Your task to perform on an android device: refresh tabs in the chrome app Image 0: 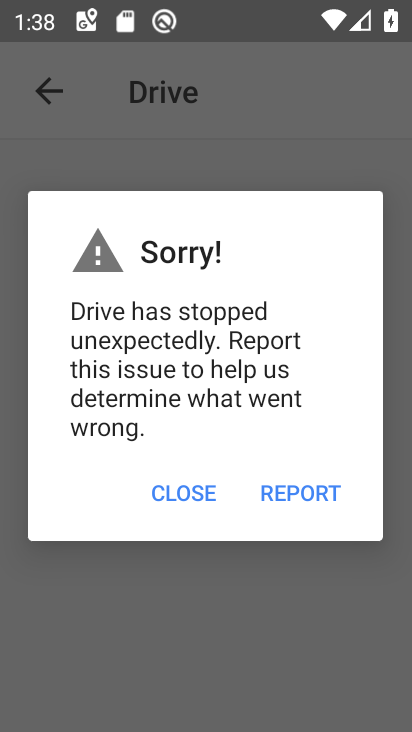
Step 0: press home button
Your task to perform on an android device: refresh tabs in the chrome app Image 1: 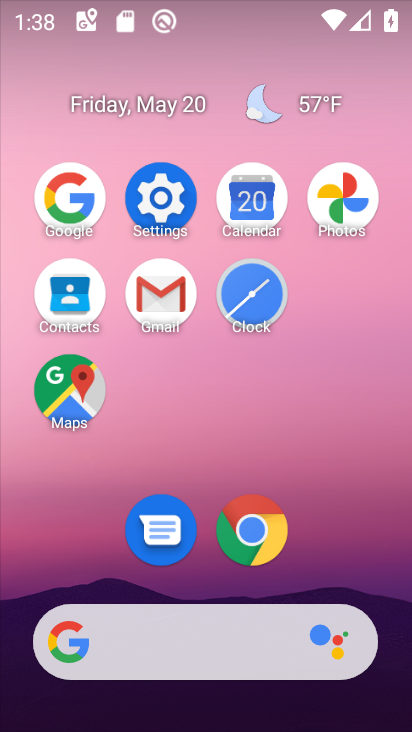
Step 1: click (269, 535)
Your task to perform on an android device: refresh tabs in the chrome app Image 2: 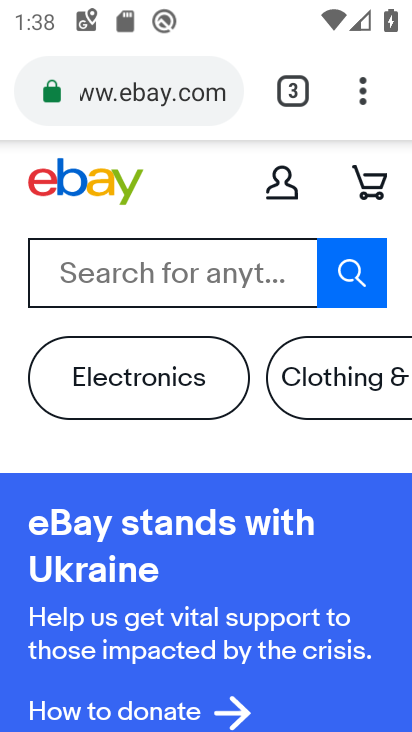
Step 2: click (368, 97)
Your task to perform on an android device: refresh tabs in the chrome app Image 3: 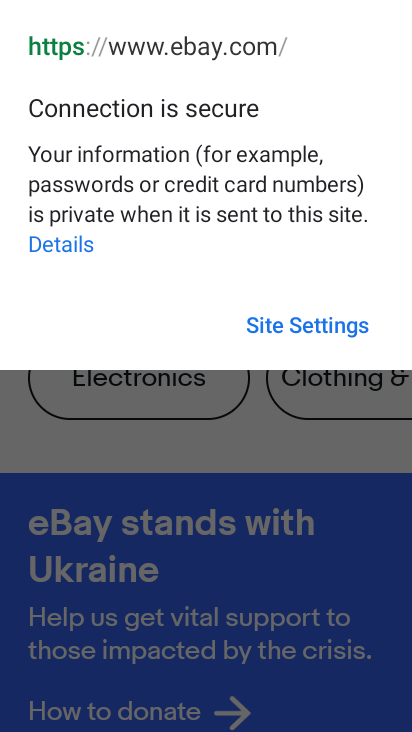
Step 3: click (240, 439)
Your task to perform on an android device: refresh tabs in the chrome app Image 4: 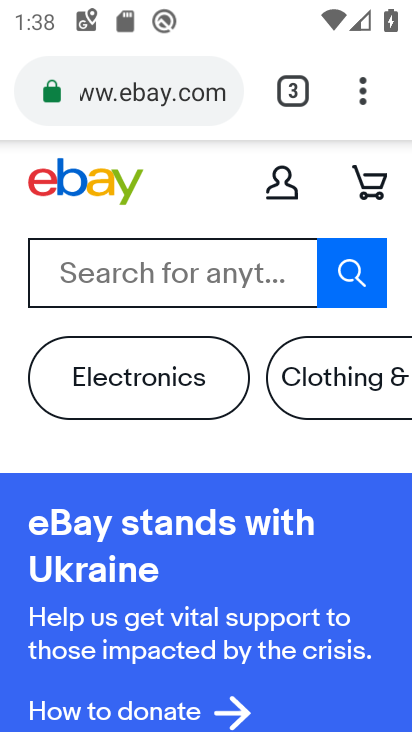
Step 4: click (349, 77)
Your task to perform on an android device: refresh tabs in the chrome app Image 5: 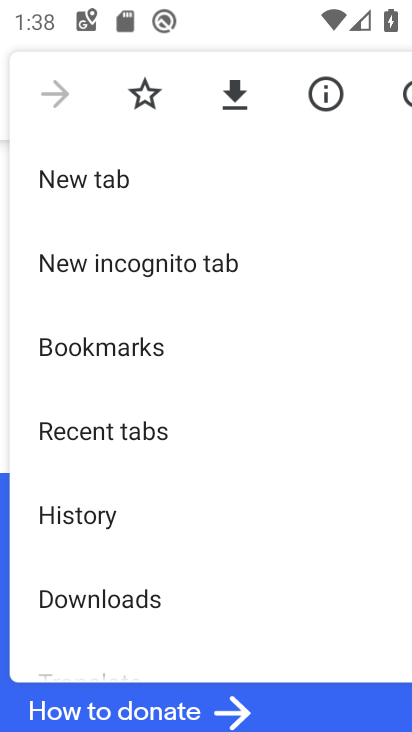
Step 5: click (397, 94)
Your task to perform on an android device: refresh tabs in the chrome app Image 6: 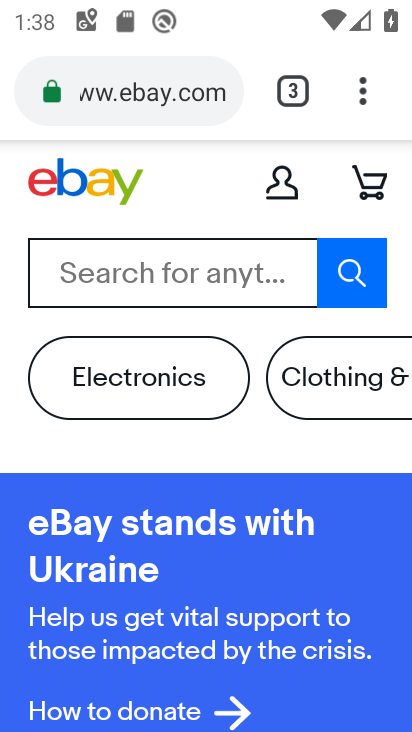
Step 6: task complete